Your task to perform on an android device: Show me productivity apps on the Play Store Image 0: 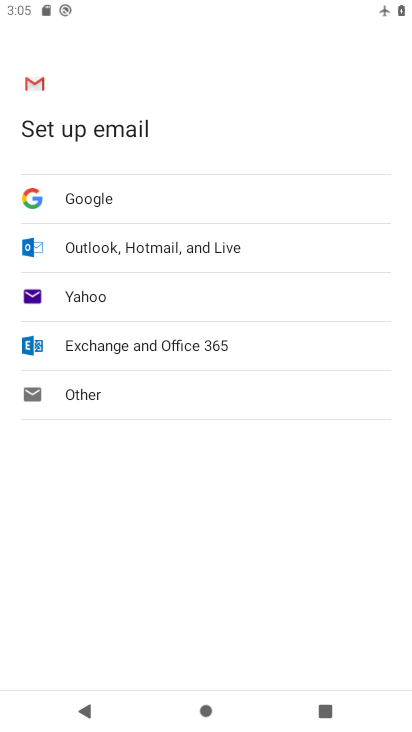
Step 0: press home button
Your task to perform on an android device: Show me productivity apps on the Play Store Image 1: 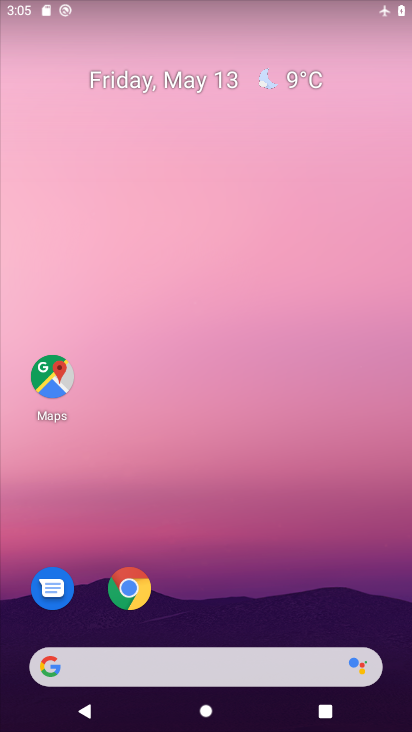
Step 1: drag from (304, 571) to (192, 97)
Your task to perform on an android device: Show me productivity apps on the Play Store Image 2: 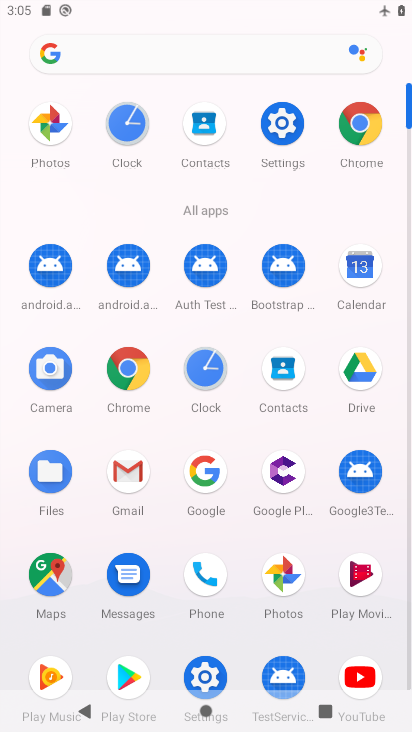
Step 2: click (132, 668)
Your task to perform on an android device: Show me productivity apps on the Play Store Image 3: 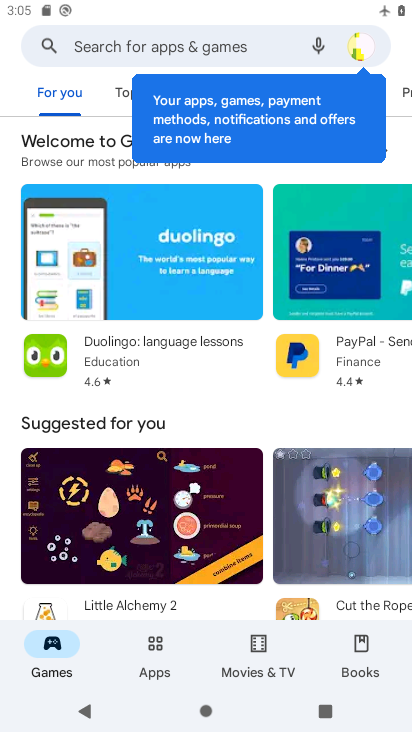
Step 3: click (165, 645)
Your task to perform on an android device: Show me productivity apps on the Play Store Image 4: 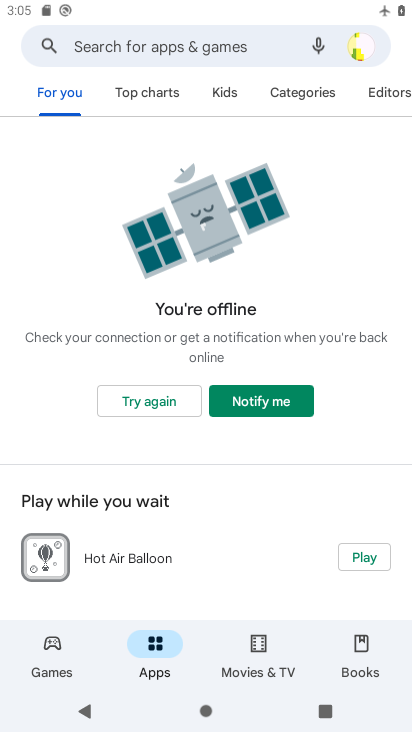
Step 4: click (296, 96)
Your task to perform on an android device: Show me productivity apps on the Play Store Image 5: 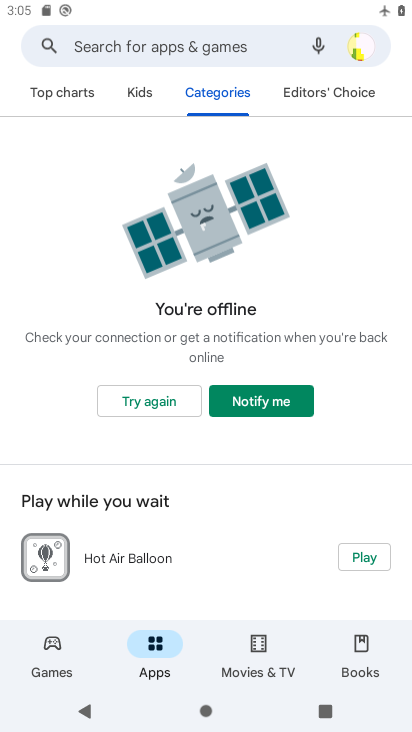
Step 5: click (181, 400)
Your task to perform on an android device: Show me productivity apps on the Play Store Image 6: 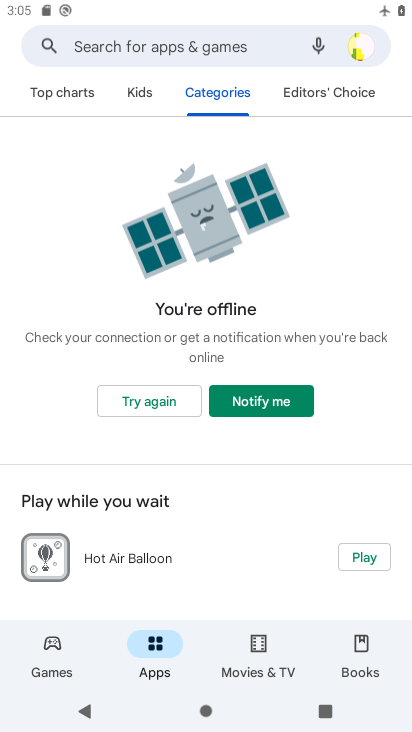
Step 6: click (181, 400)
Your task to perform on an android device: Show me productivity apps on the Play Store Image 7: 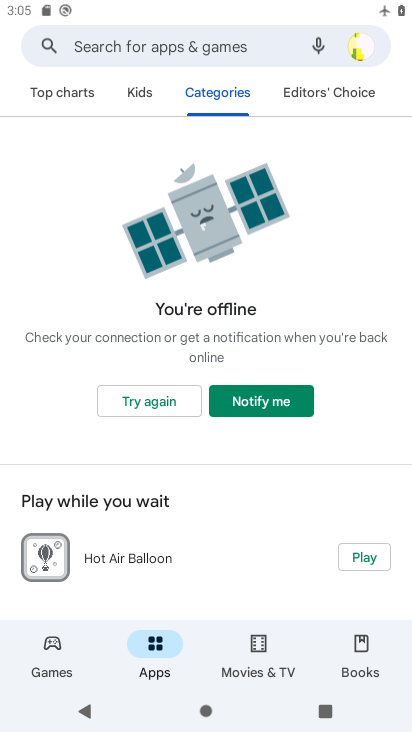
Step 7: click (164, 399)
Your task to perform on an android device: Show me productivity apps on the Play Store Image 8: 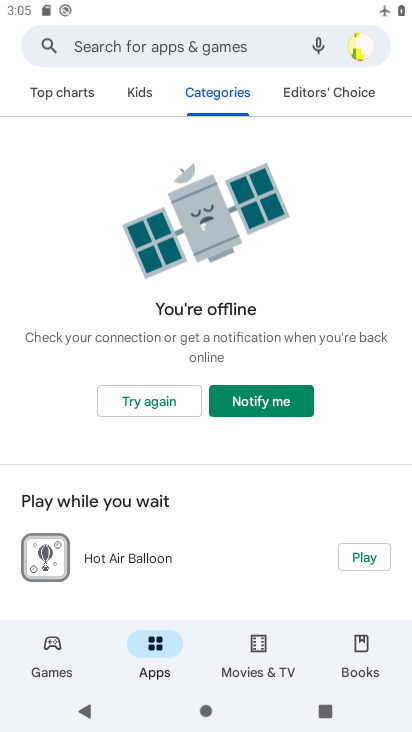
Step 8: click (164, 399)
Your task to perform on an android device: Show me productivity apps on the Play Store Image 9: 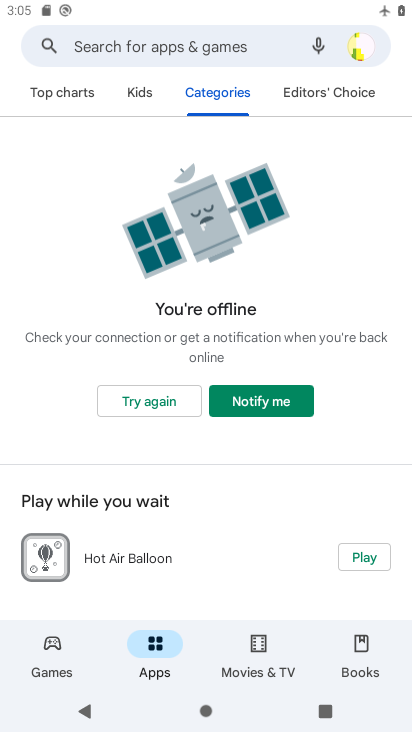
Step 9: click (165, 403)
Your task to perform on an android device: Show me productivity apps on the Play Store Image 10: 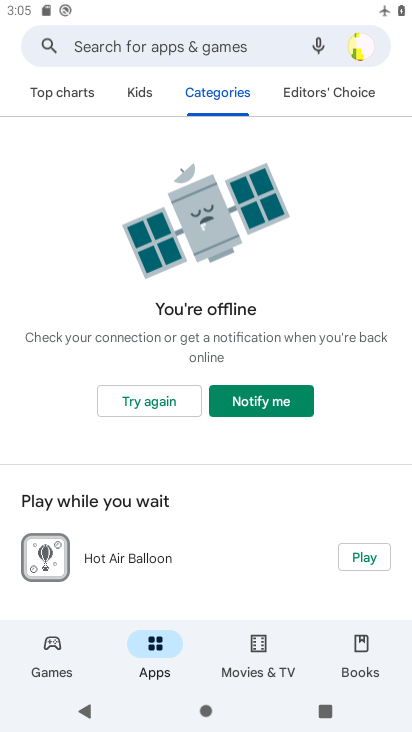
Step 10: click (165, 403)
Your task to perform on an android device: Show me productivity apps on the Play Store Image 11: 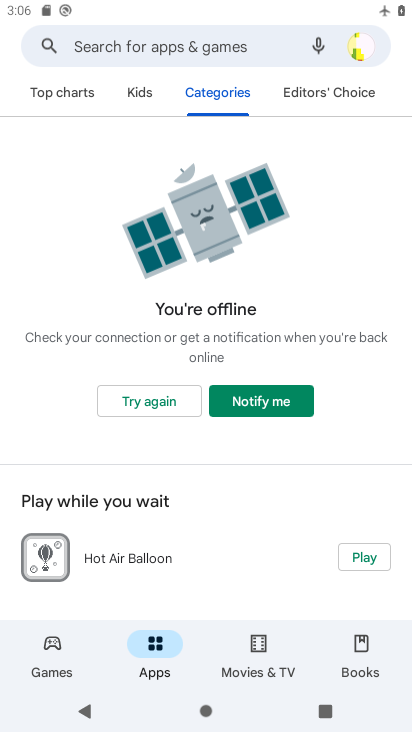
Step 11: click (165, 403)
Your task to perform on an android device: Show me productivity apps on the Play Store Image 12: 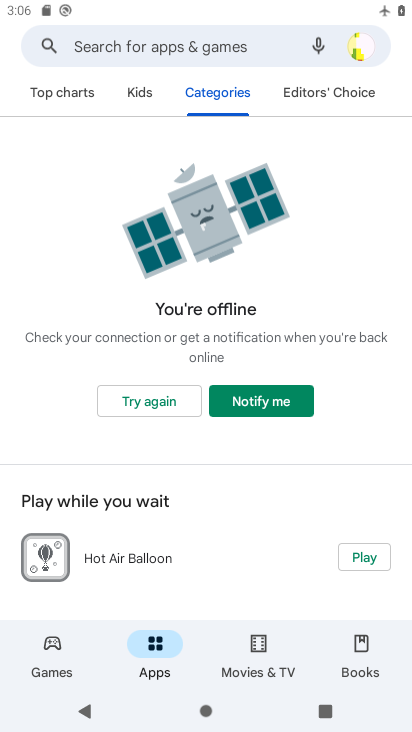
Step 12: task complete